Your task to perform on an android device: turn off picture-in-picture Image 0: 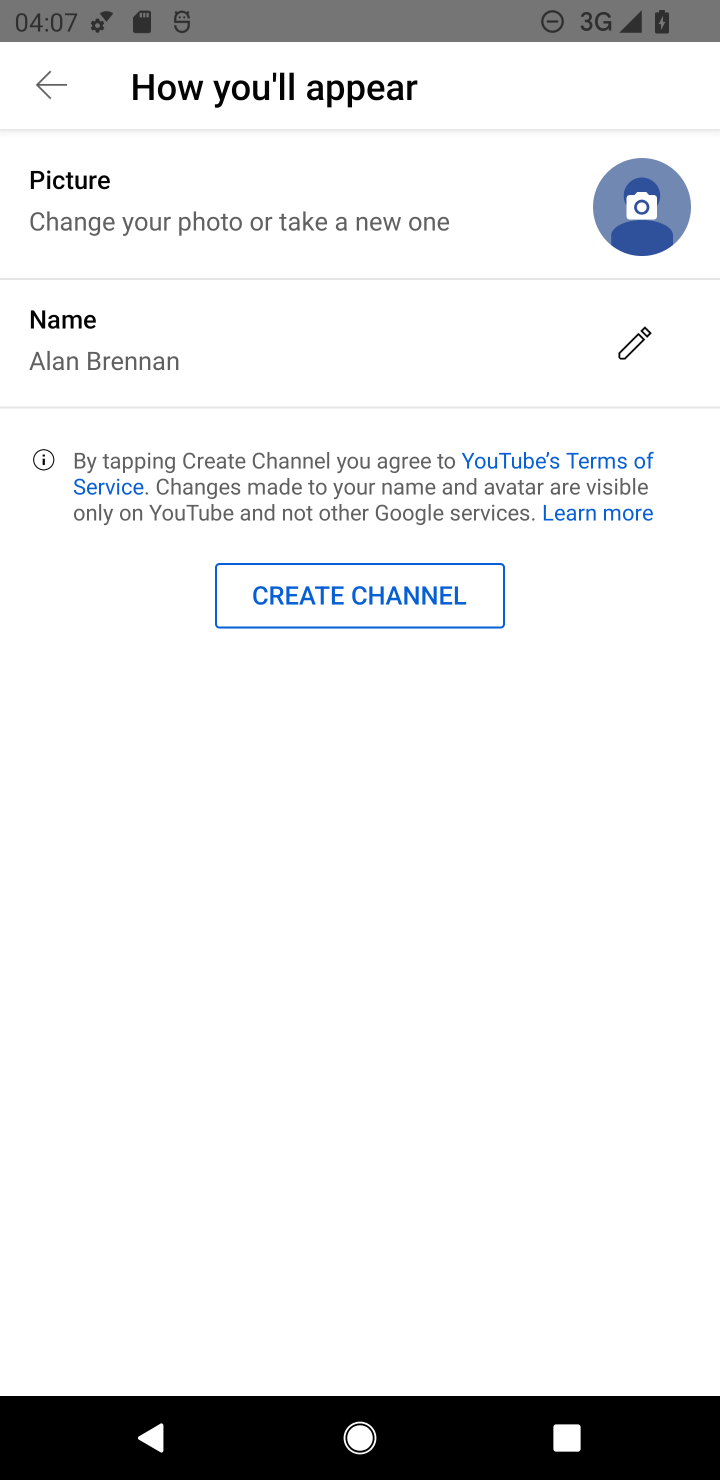
Step 0: press home button
Your task to perform on an android device: turn off picture-in-picture Image 1: 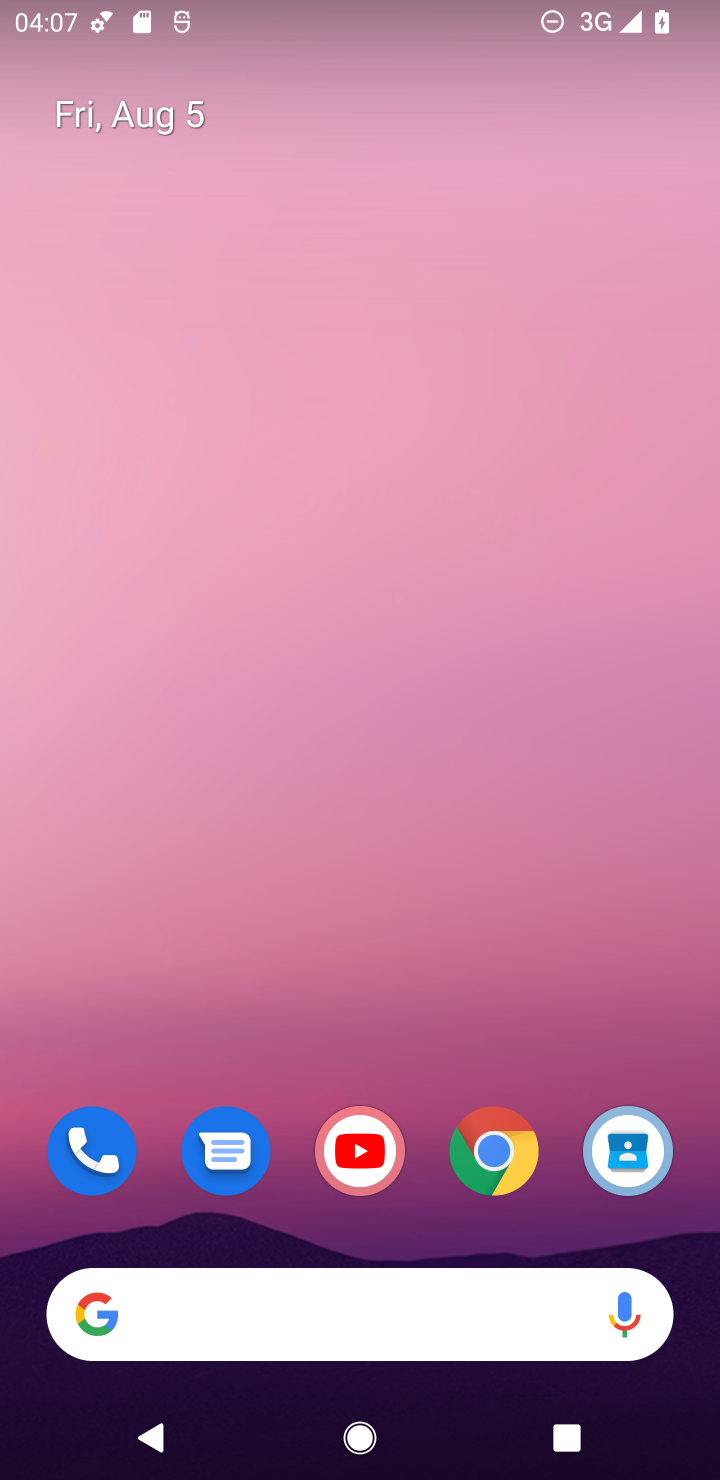
Step 1: click (486, 1152)
Your task to perform on an android device: turn off picture-in-picture Image 2: 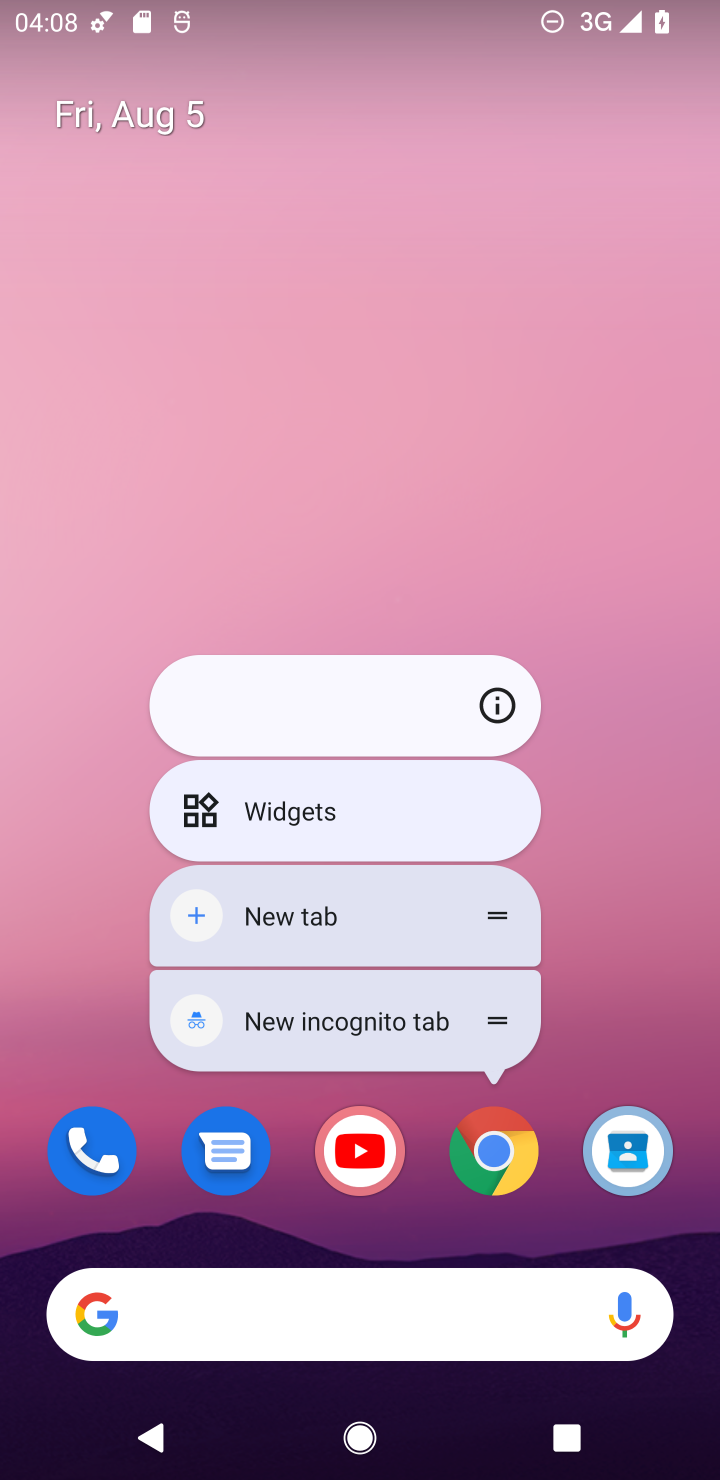
Step 2: click (504, 710)
Your task to perform on an android device: turn off picture-in-picture Image 3: 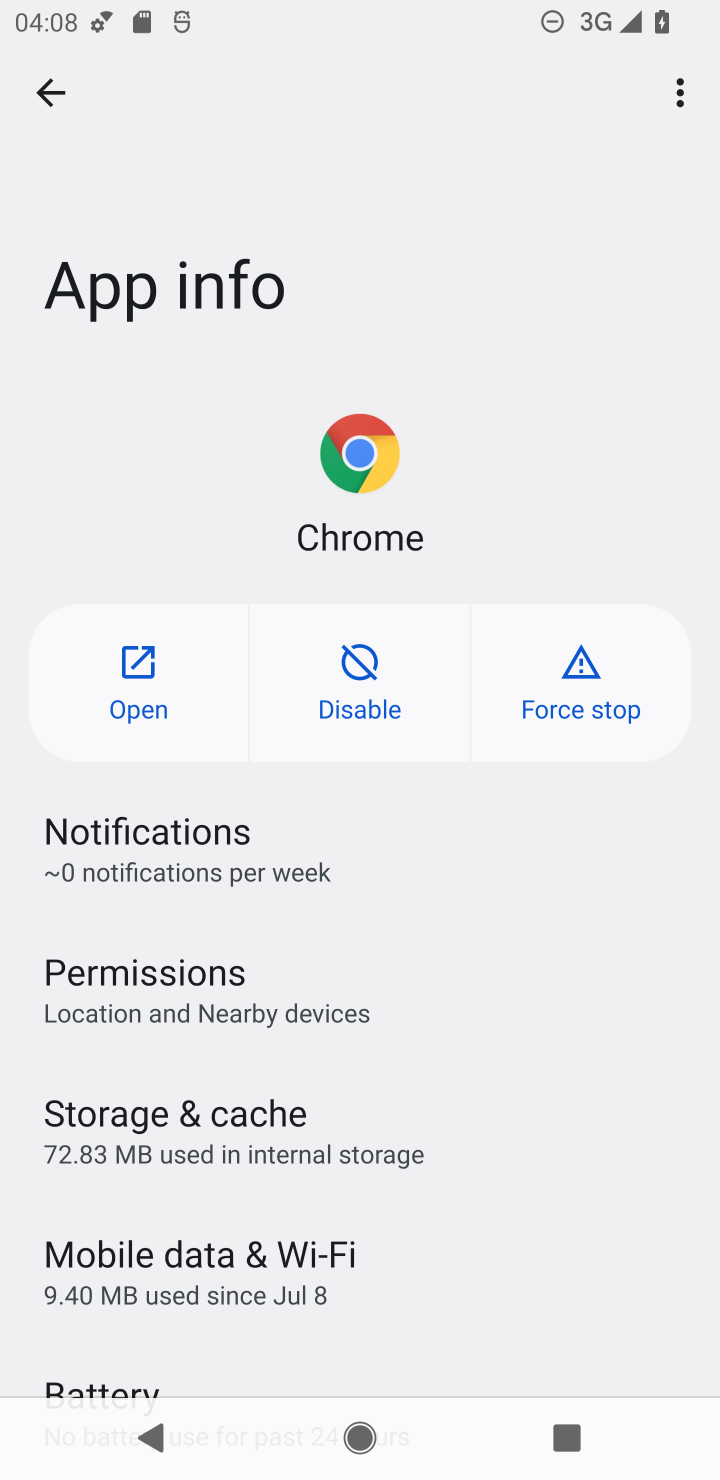
Step 3: drag from (266, 1082) to (71, 135)
Your task to perform on an android device: turn off picture-in-picture Image 4: 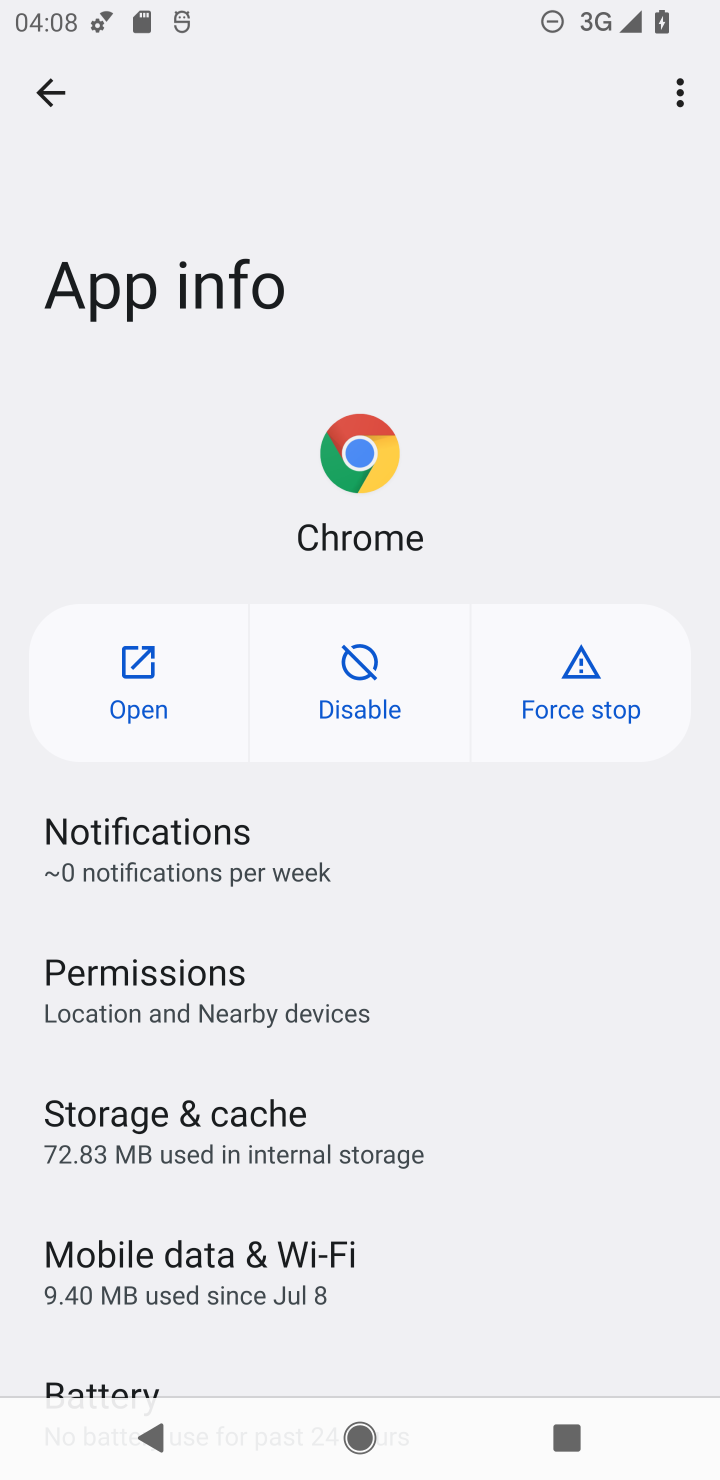
Step 4: drag from (374, 1096) to (219, 269)
Your task to perform on an android device: turn off picture-in-picture Image 5: 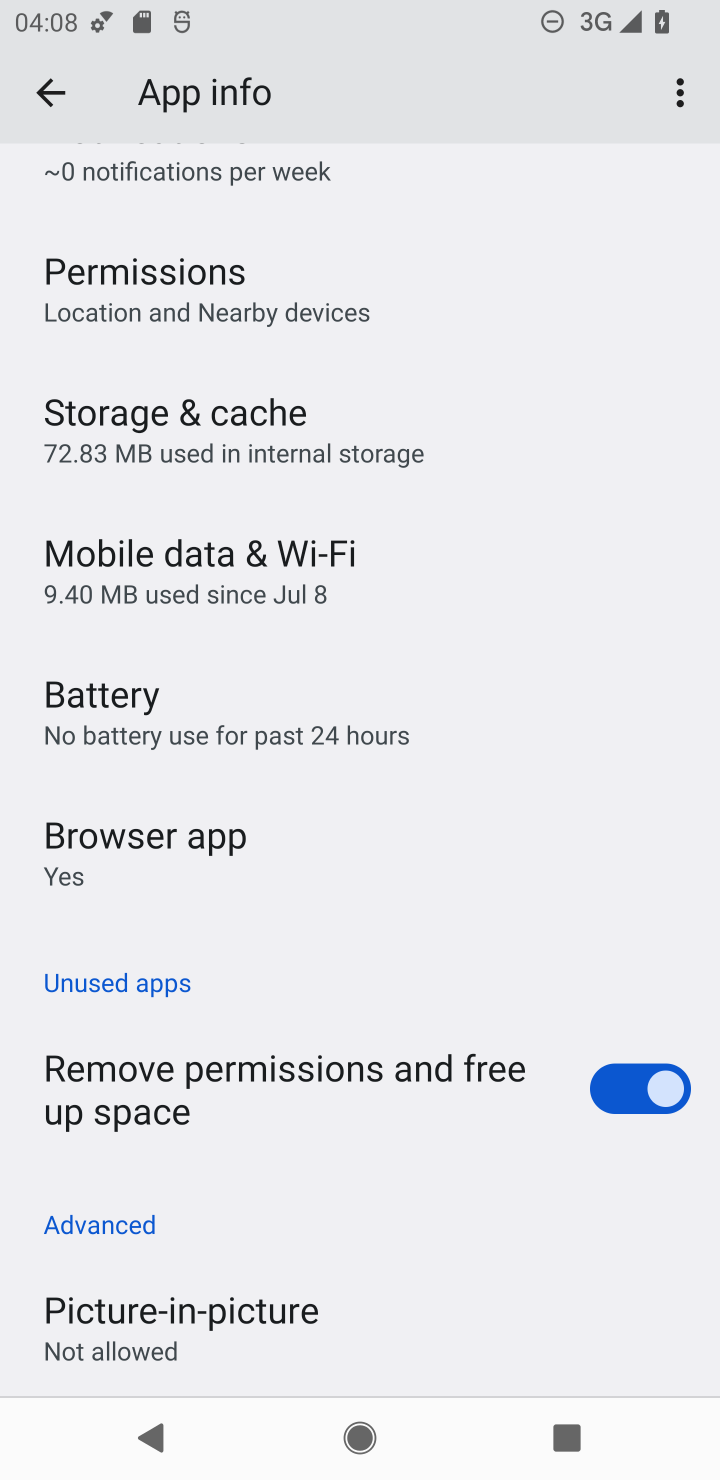
Step 5: click (314, 1344)
Your task to perform on an android device: turn off picture-in-picture Image 6: 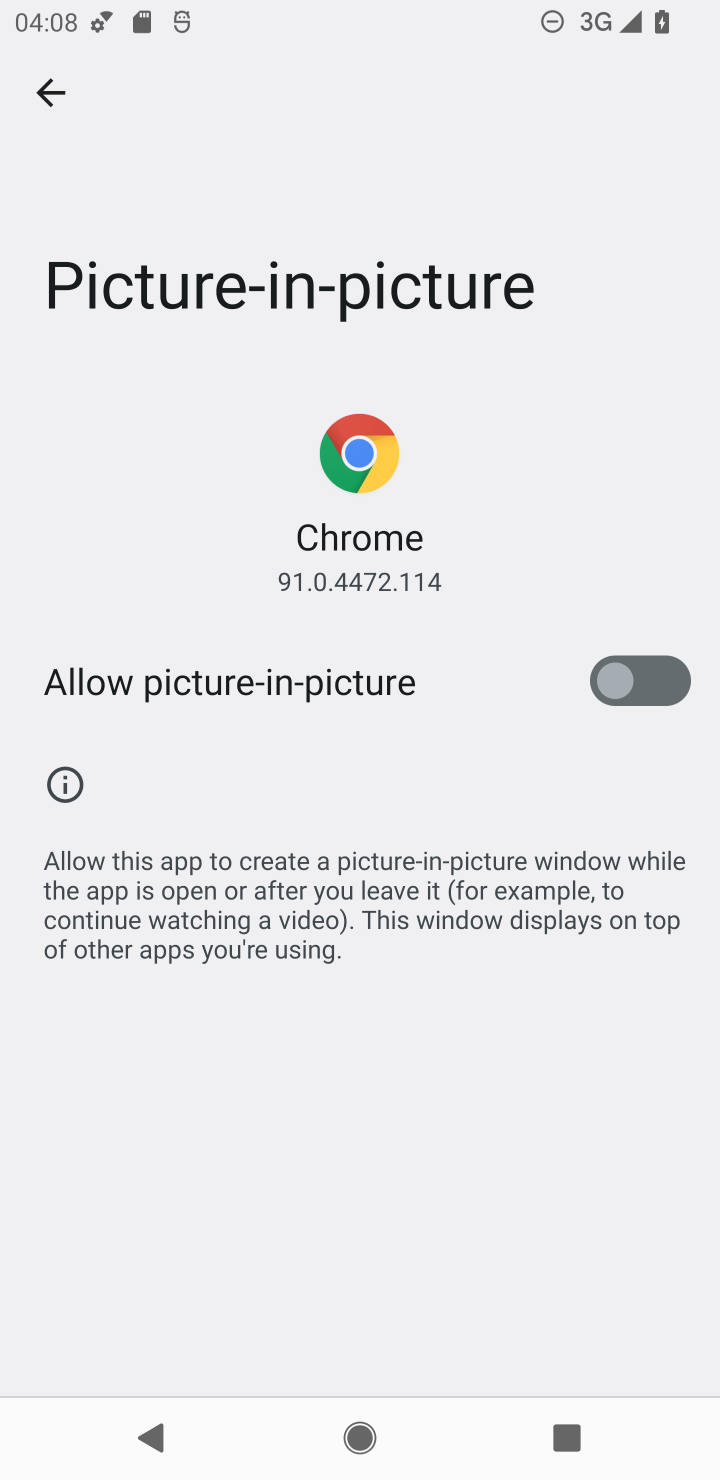
Step 6: task complete